Your task to perform on an android device: change the upload size in google photos Image 0: 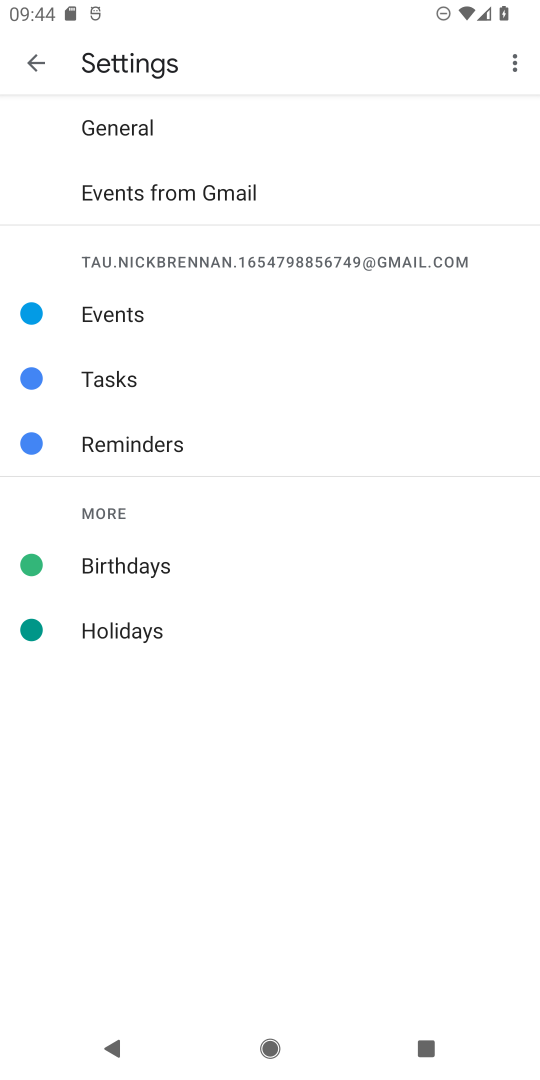
Step 0: press home button
Your task to perform on an android device: change the upload size in google photos Image 1: 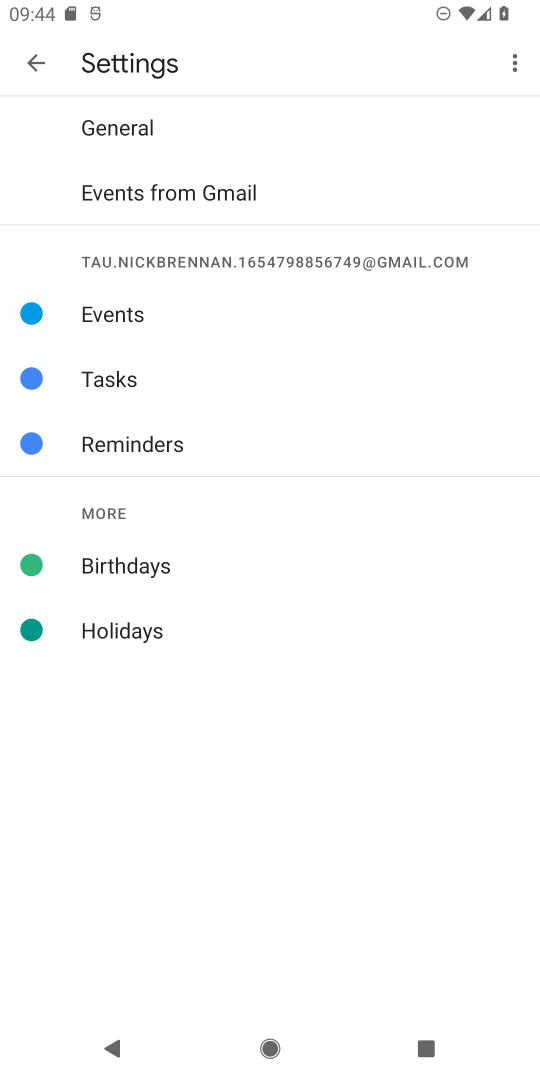
Step 1: press home button
Your task to perform on an android device: change the upload size in google photos Image 2: 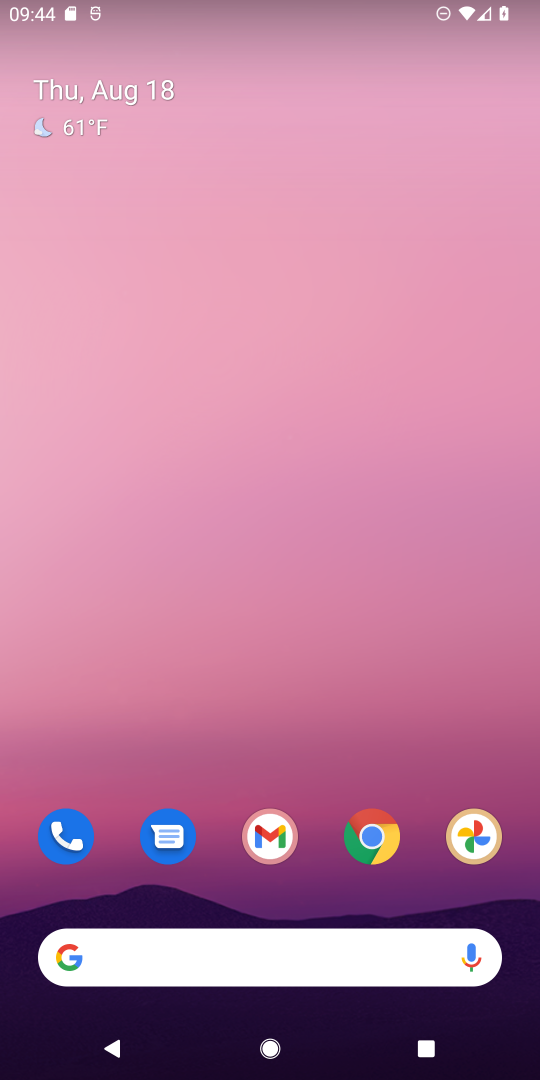
Step 2: drag from (304, 789) to (308, 151)
Your task to perform on an android device: change the upload size in google photos Image 3: 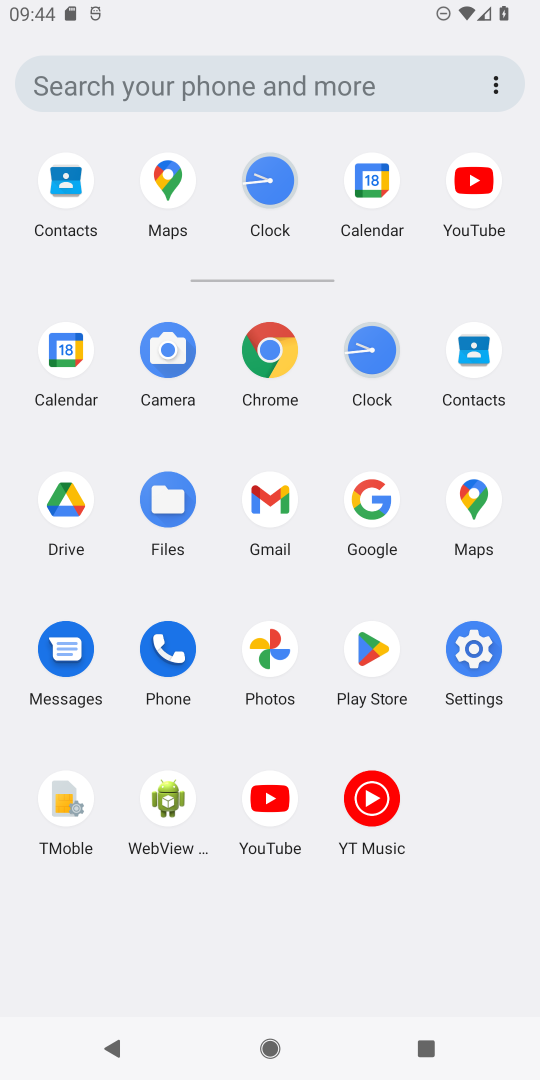
Step 3: click (276, 648)
Your task to perform on an android device: change the upload size in google photos Image 4: 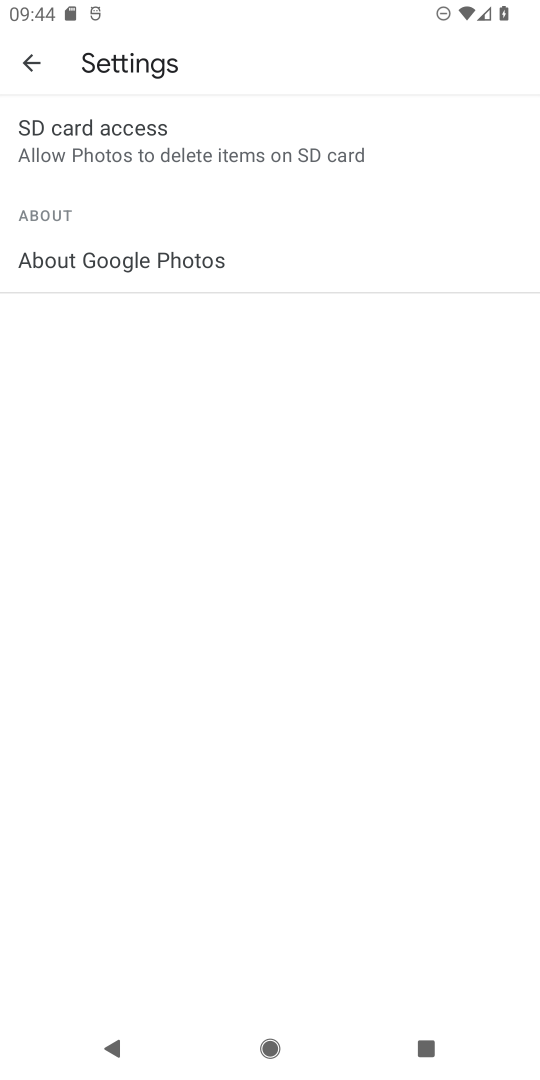
Step 4: press back button
Your task to perform on an android device: change the upload size in google photos Image 5: 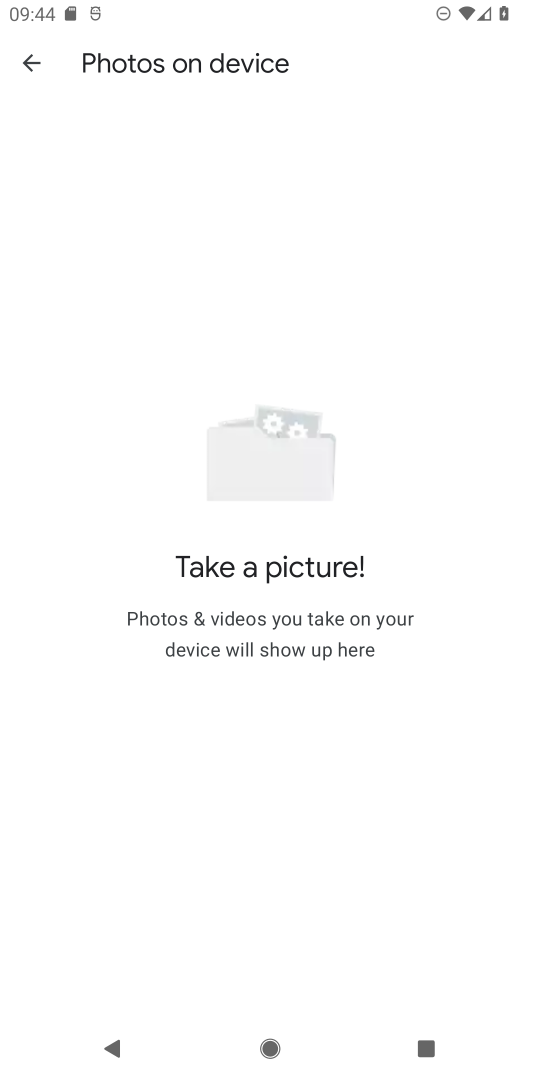
Step 5: click (38, 47)
Your task to perform on an android device: change the upload size in google photos Image 6: 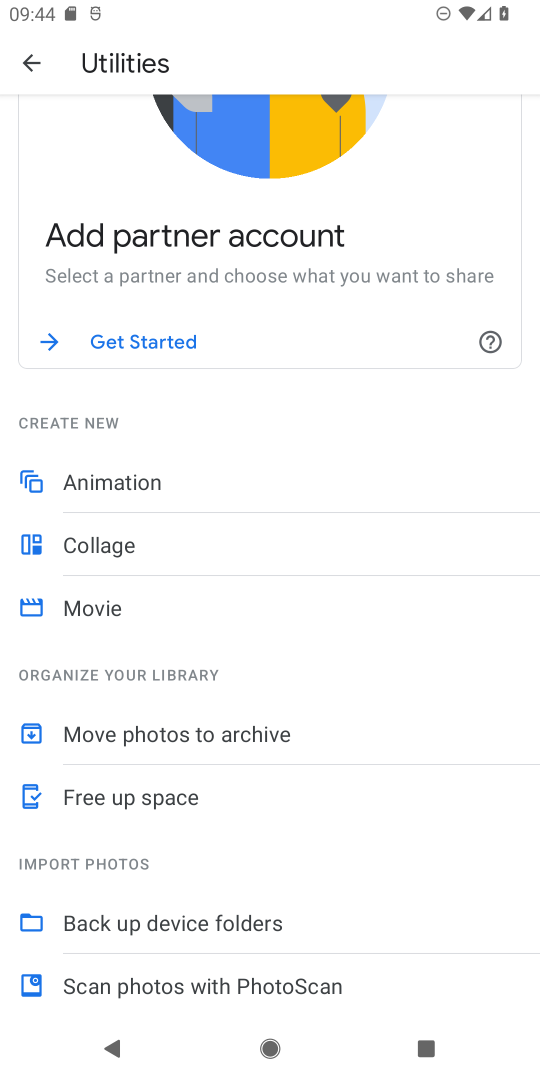
Step 6: press back button
Your task to perform on an android device: change the upload size in google photos Image 7: 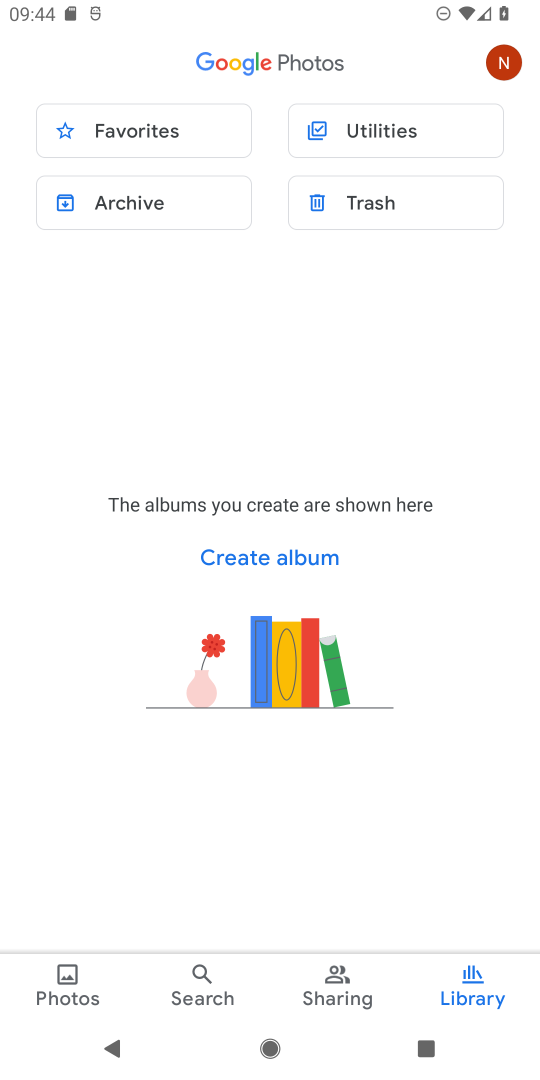
Step 7: click (100, 997)
Your task to perform on an android device: change the upload size in google photos Image 8: 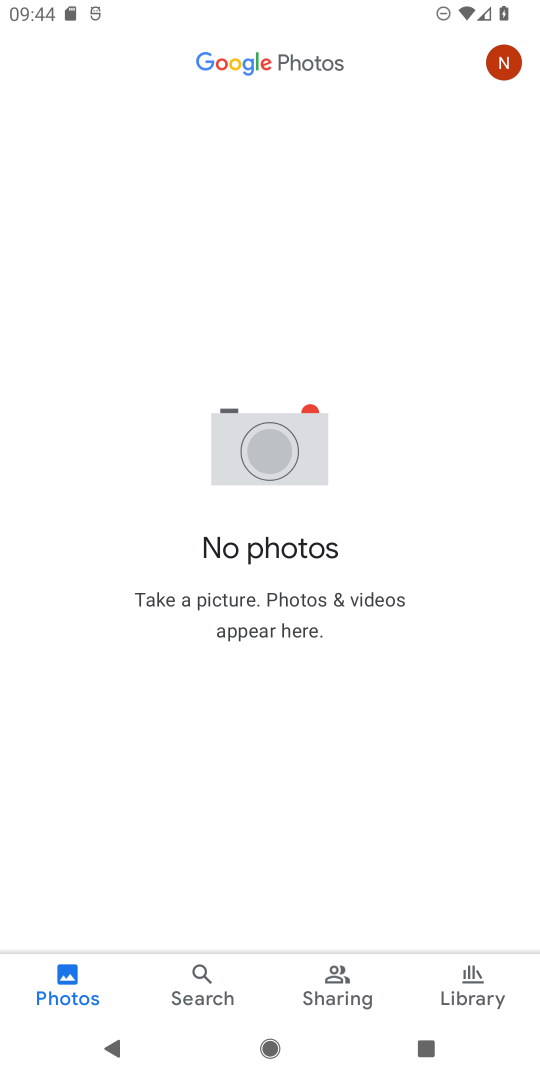
Step 8: click (508, 71)
Your task to perform on an android device: change the upload size in google photos Image 9: 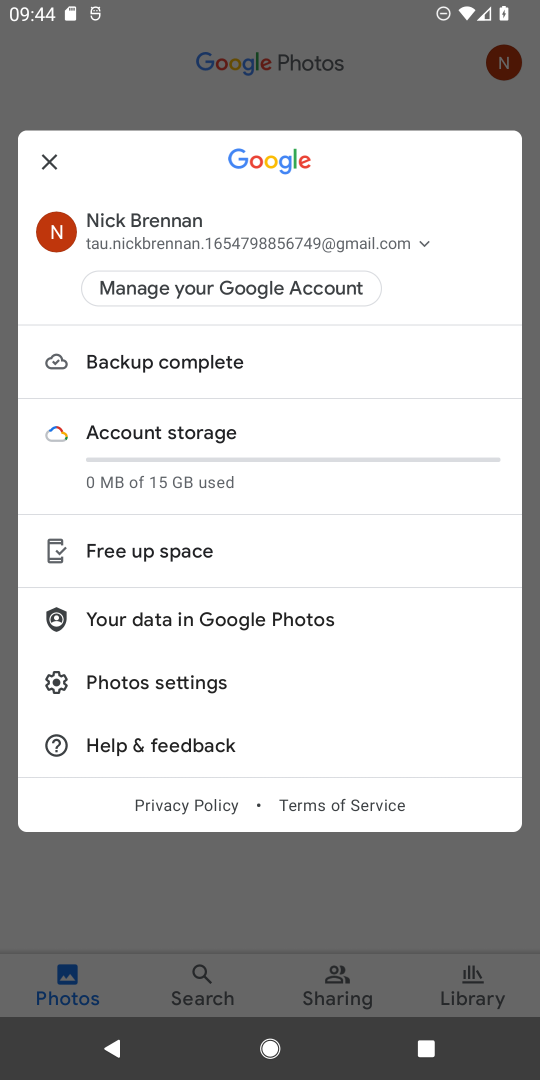
Step 9: click (217, 693)
Your task to perform on an android device: change the upload size in google photos Image 10: 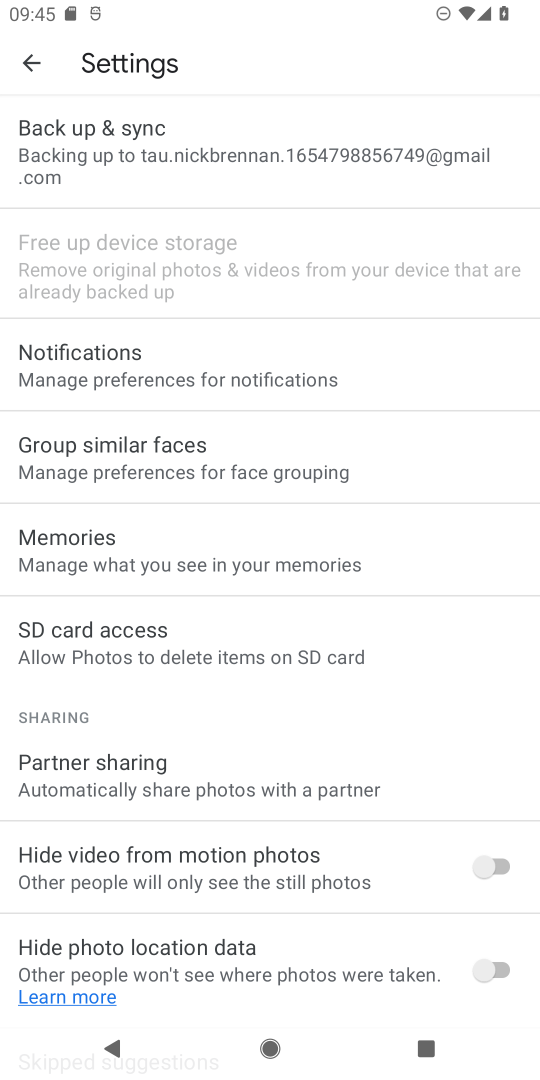
Step 10: click (271, 152)
Your task to perform on an android device: change the upload size in google photos Image 11: 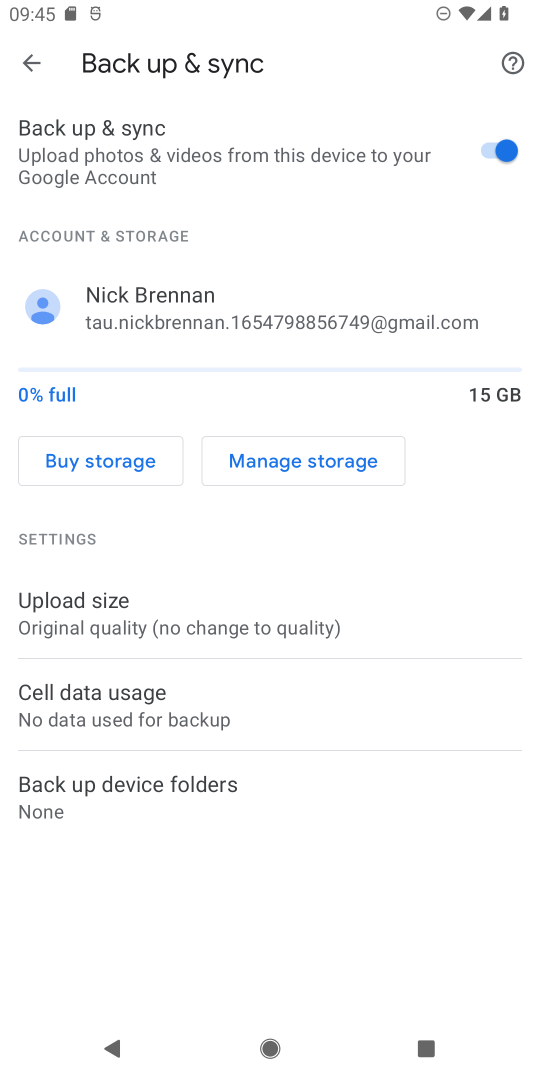
Step 11: click (99, 640)
Your task to perform on an android device: change the upload size in google photos Image 12: 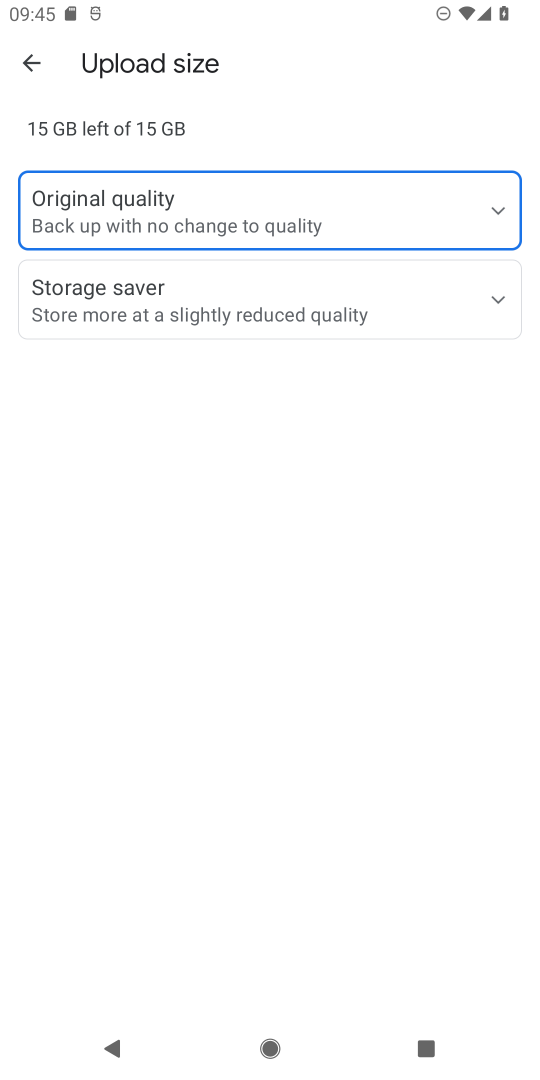
Step 12: click (224, 282)
Your task to perform on an android device: change the upload size in google photos Image 13: 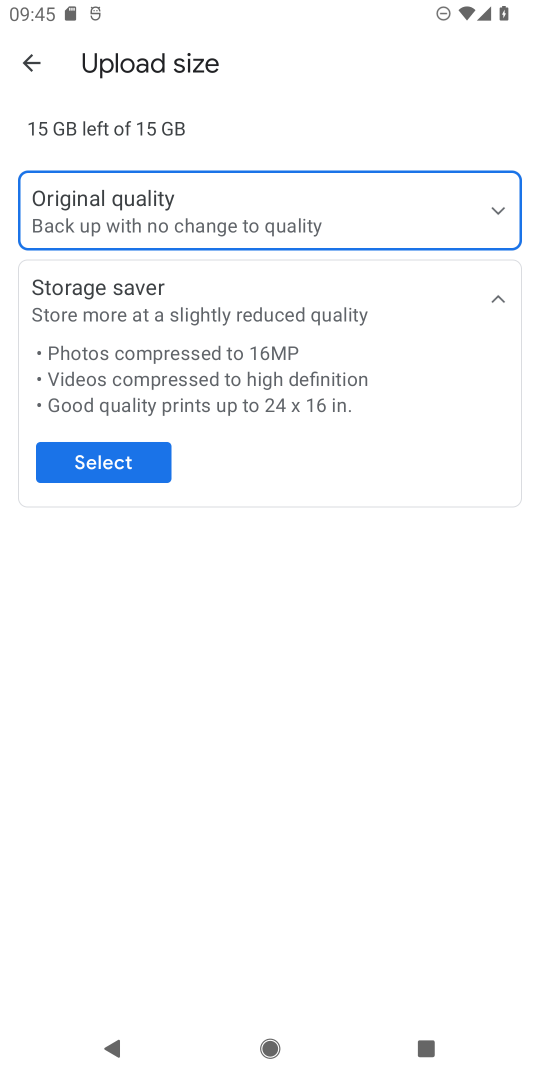
Step 13: click (121, 486)
Your task to perform on an android device: change the upload size in google photos Image 14: 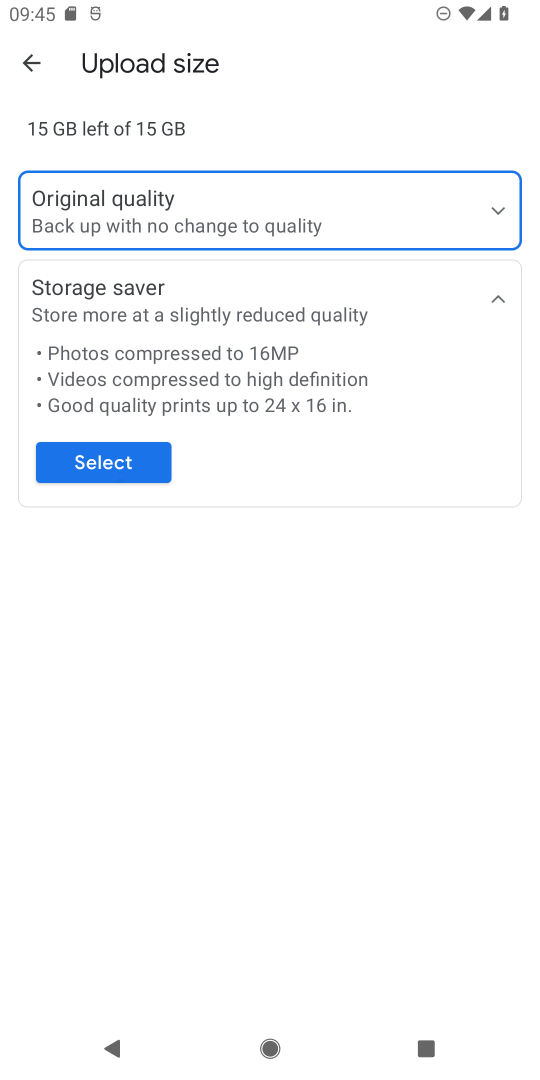
Step 14: click (121, 477)
Your task to perform on an android device: change the upload size in google photos Image 15: 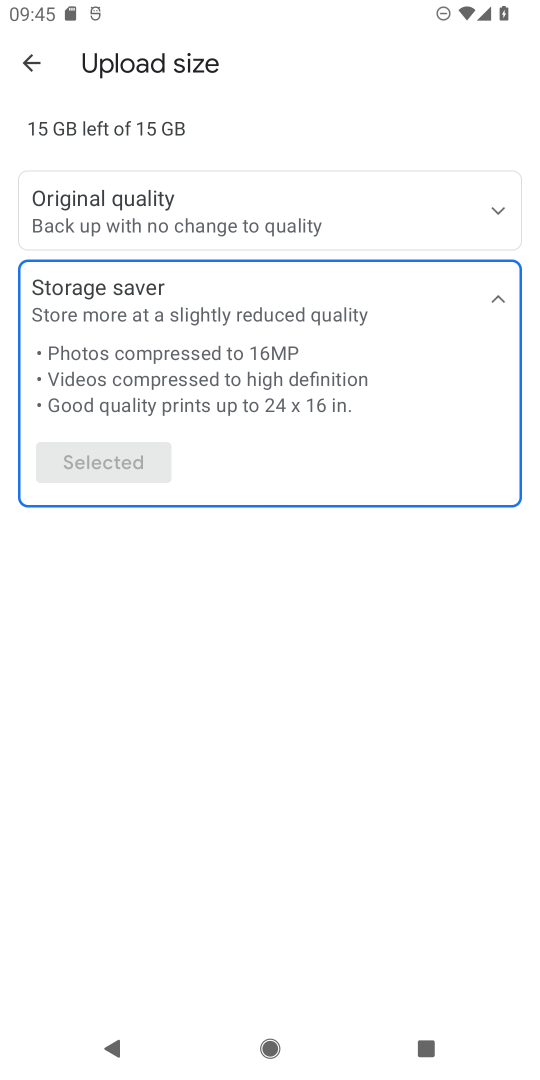
Step 15: click (121, 477)
Your task to perform on an android device: change the upload size in google photos Image 16: 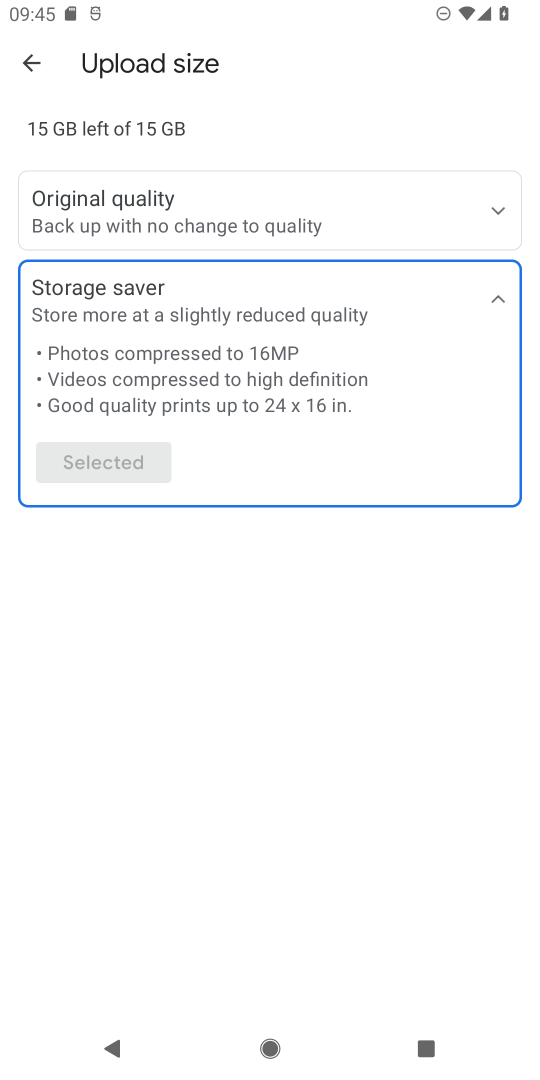
Step 16: task complete